Your task to perform on an android device: Clear the cart on walmart. Add "asus rog" to the cart on walmart, then select checkout. Image 0: 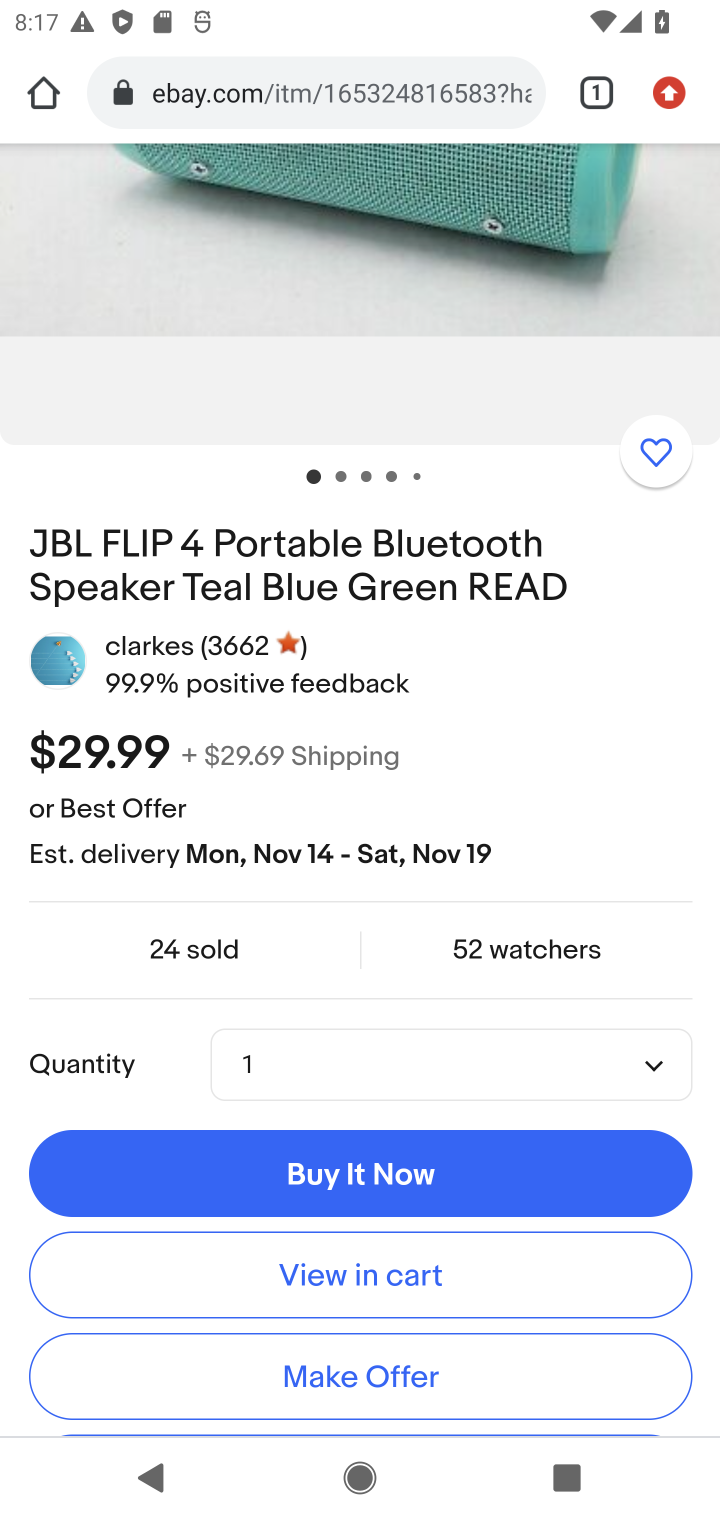
Step 0: press home button
Your task to perform on an android device: Clear the cart on walmart. Add "asus rog" to the cart on walmart, then select checkout. Image 1: 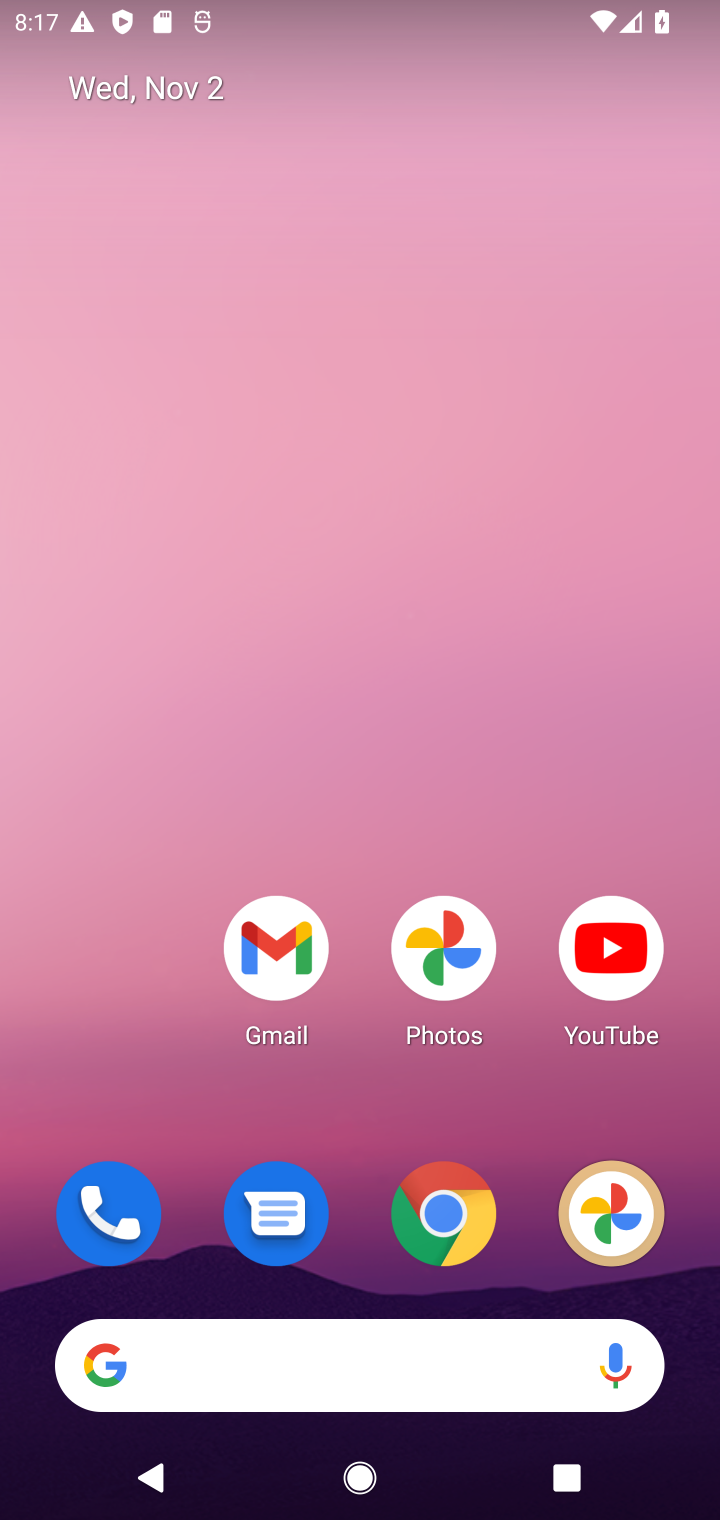
Step 1: click (452, 1213)
Your task to perform on an android device: Clear the cart on walmart. Add "asus rog" to the cart on walmart, then select checkout. Image 2: 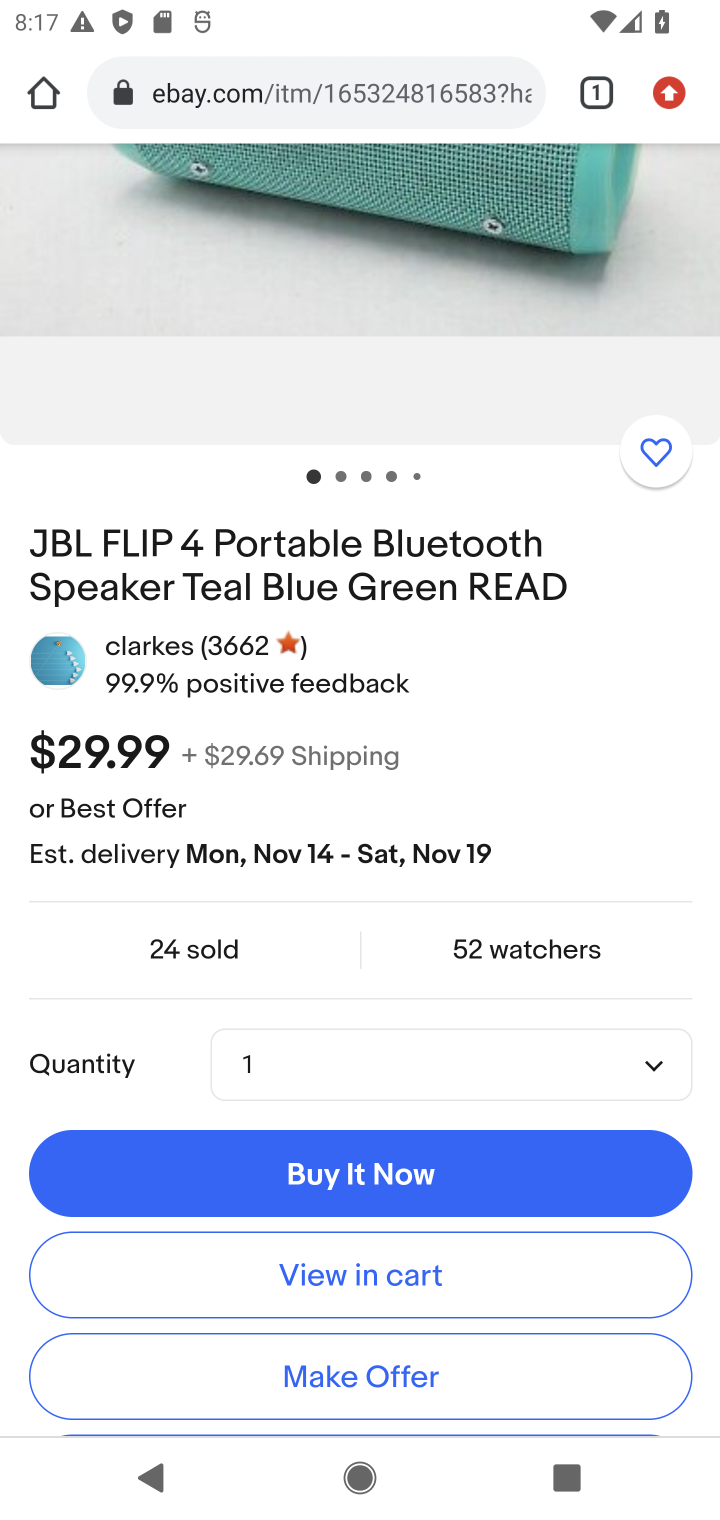
Step 2: click (323, 92)
Your task to perform on an android device: Clear the cart on walmart. Add "asus rog" to the cart on walmart, then select checkout. Image 3: 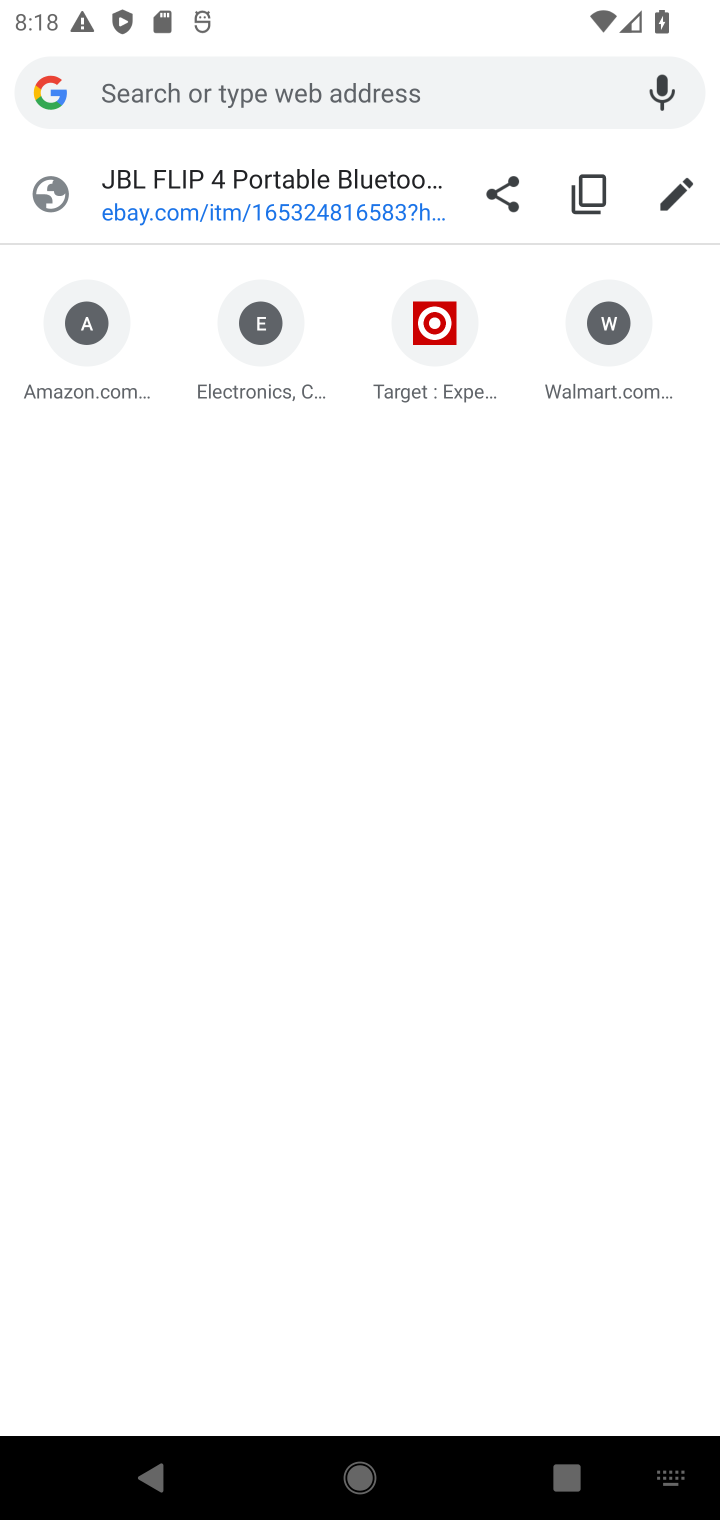
Step 3: click (193, 103)
Your task to perform on an android device: Clear the cart on walmart. Add "asus rog" to the cart on walmart, then select checkout. Image 4: 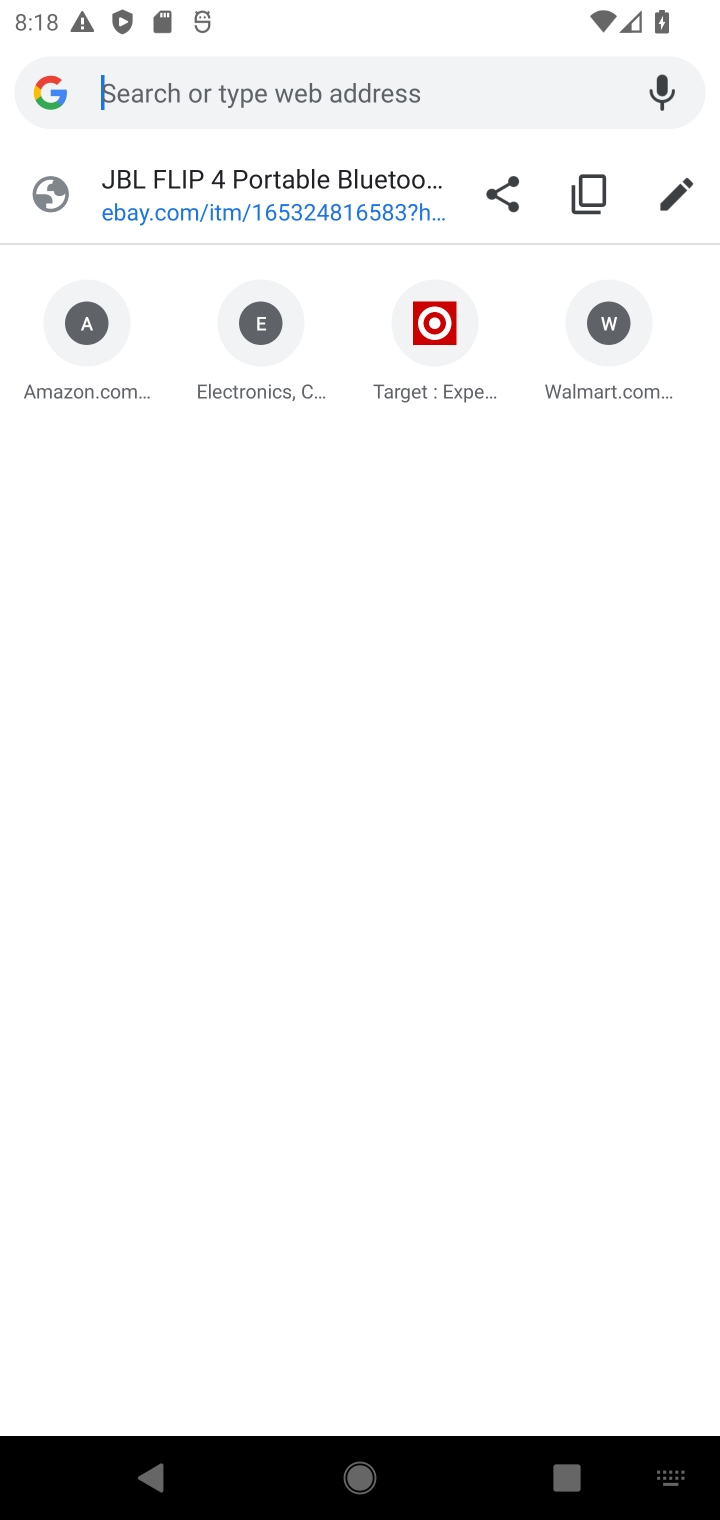
Step 4: type " walmart.com"
Your task to perform on an android device: Clear the cart on walmart. Add "asus rog" to the cart on walmart, then select checkout. Image 5: 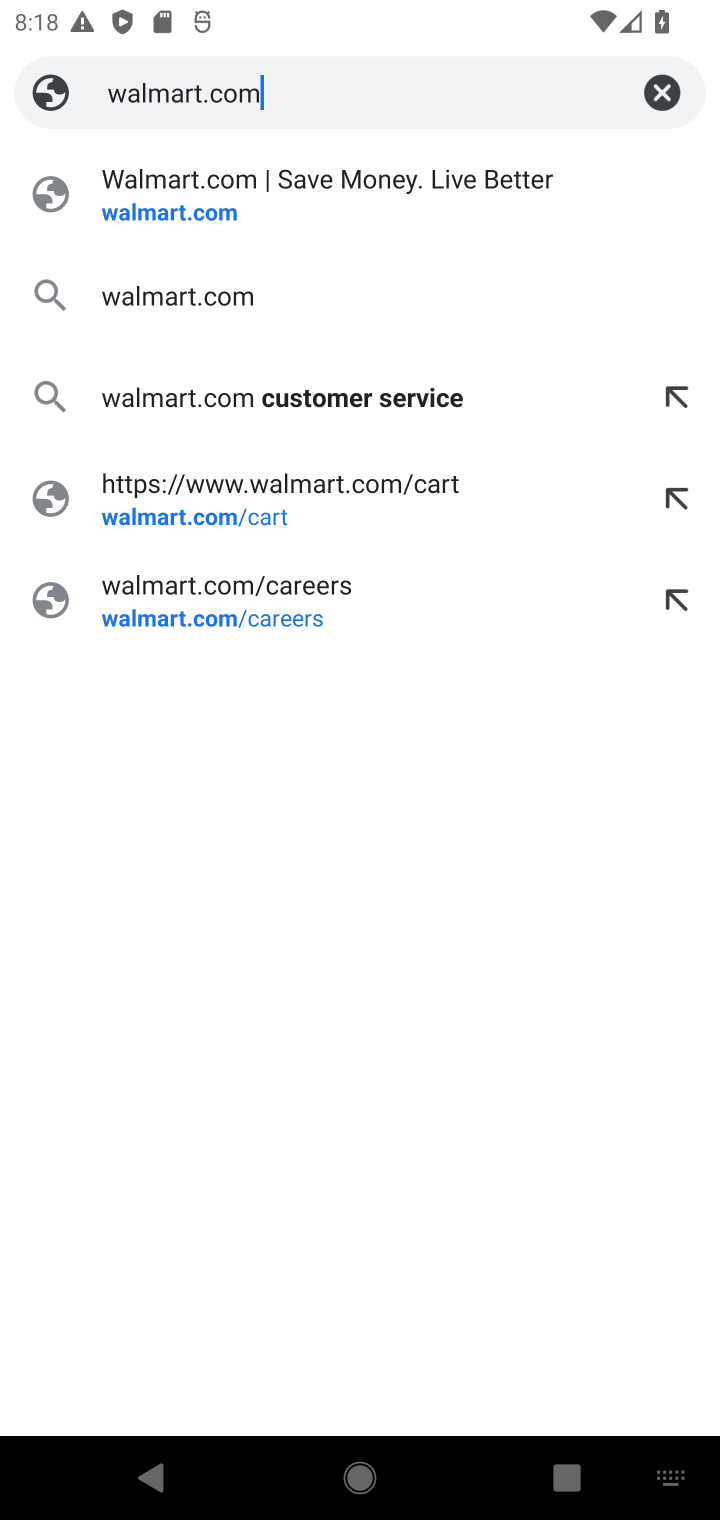
Step 5: click (147, 219)
Your task to perform on an android device: Clear the cart on walmart. Add "asus rog" to the cart on walmart, then select checkout. Image 6: 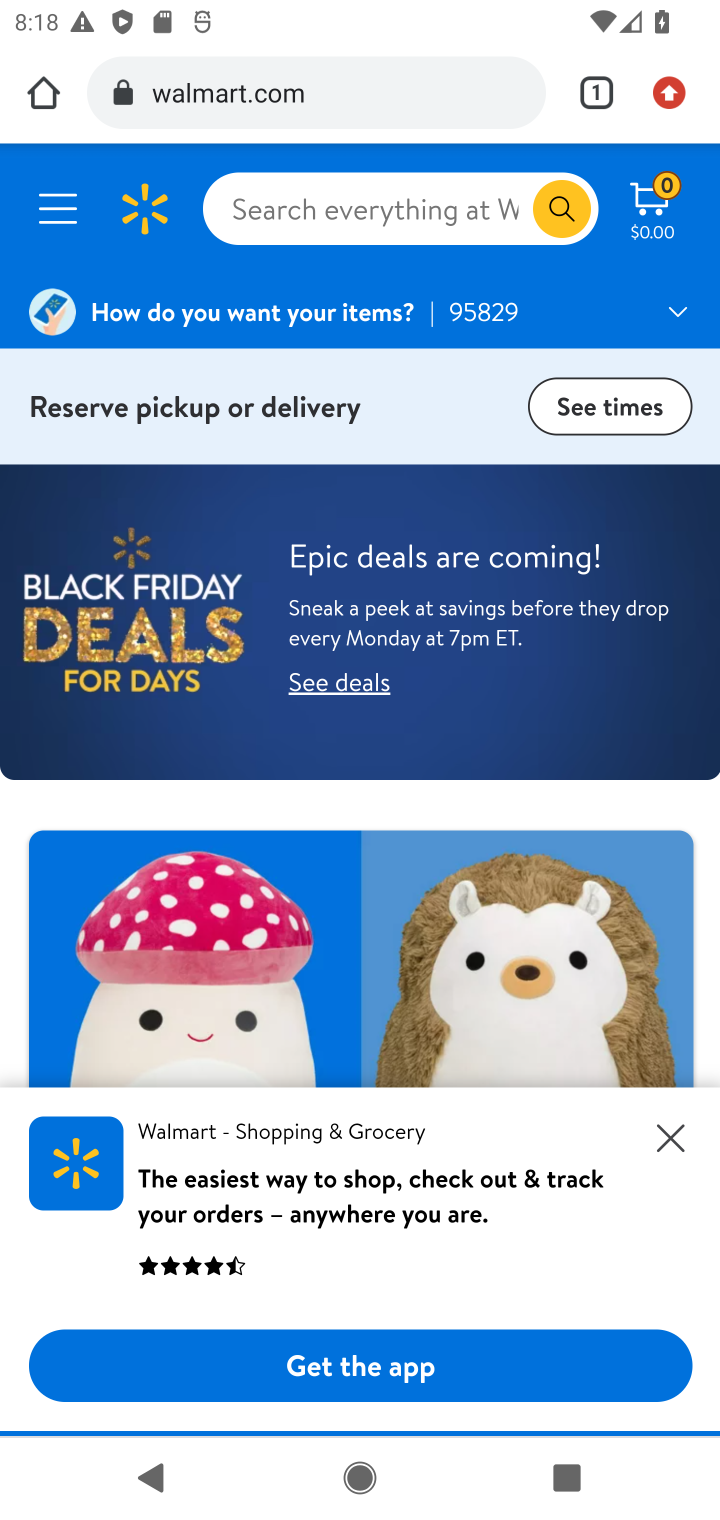
Step 6: click (653, 223)
Your task to perform on an android device: Clear the cart on walmart. Add "asus rog" to the cart on walmart, then select checkout. Image 7: 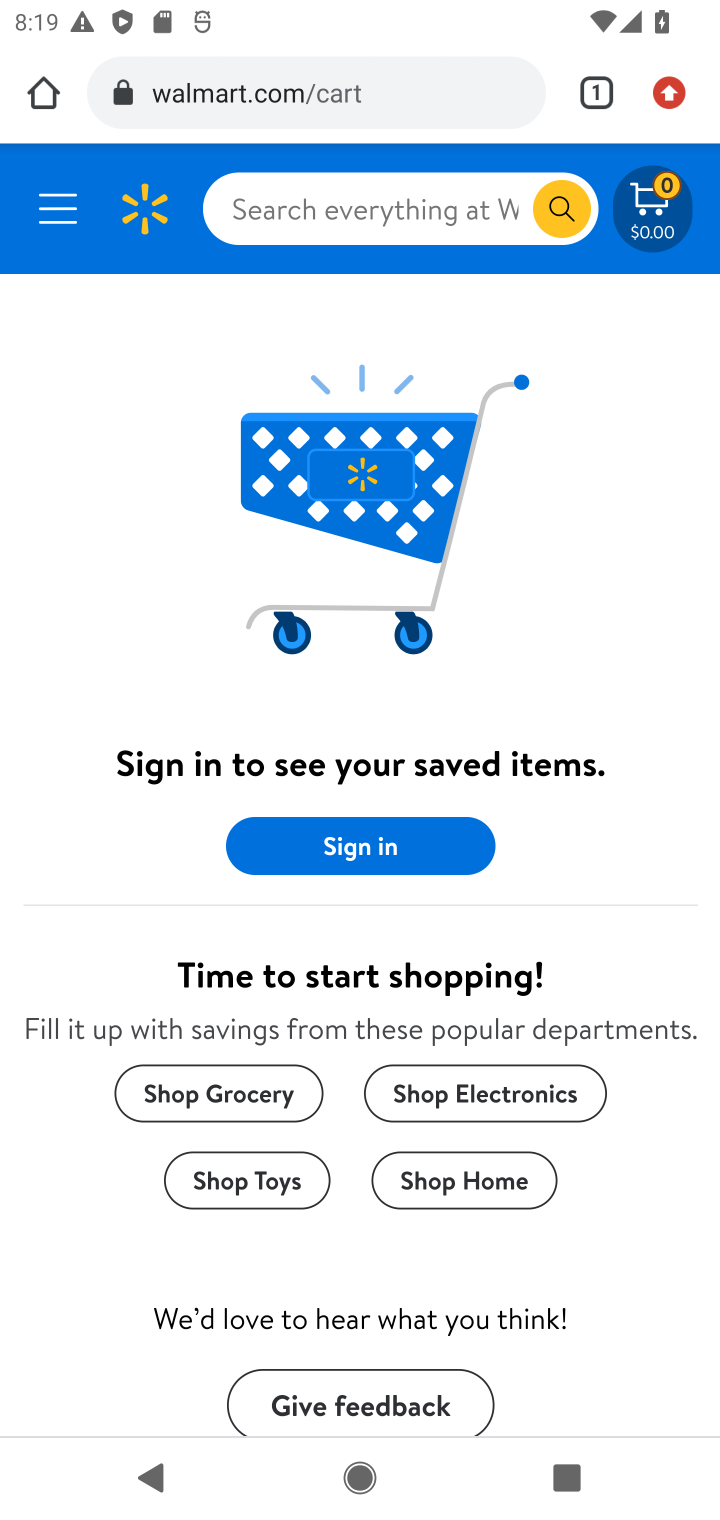
Step 7: click (664, 208)
Your task to perform on an android device: Clear the cart on walmart. Add "asus rog" to the cart on walmart, then select checkout. Image 8: 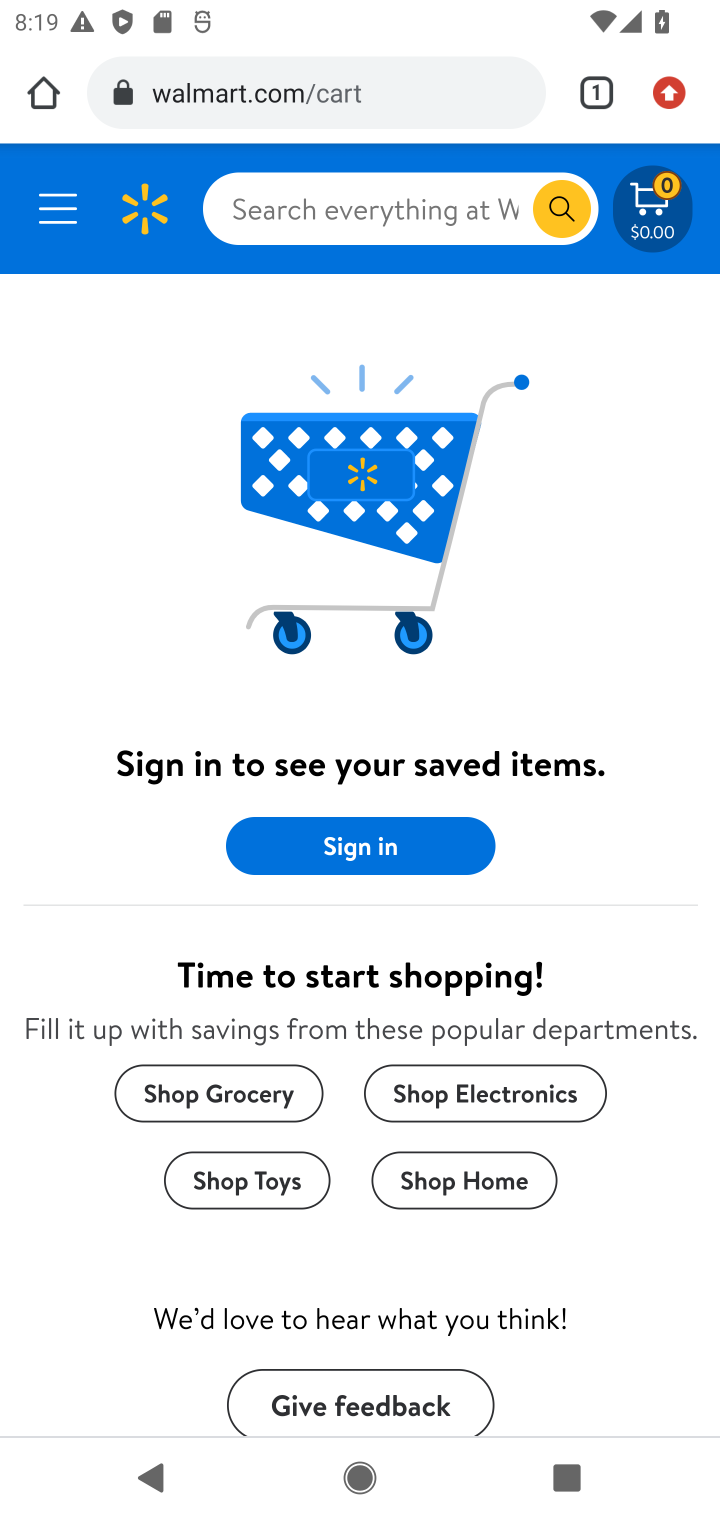
Step 8: click (308, 215)
Your task to perform on an android device: Clear the cart on walmart. Add "asus rog" to the cart on walmart, then select checkout. Image 9: 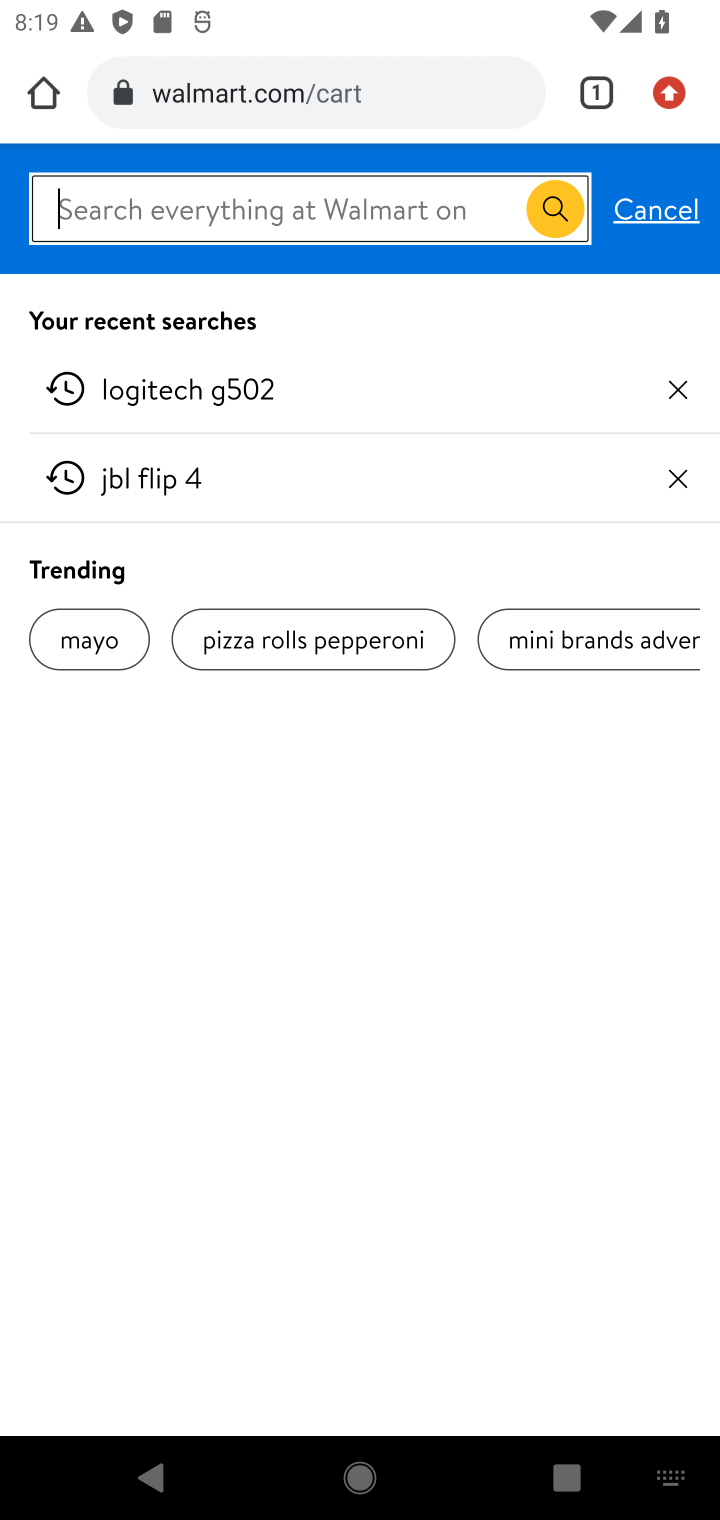
Step 9: type "asus rog"
Your task to perform on an android device: Clear the cart on walmart. Add "asus rog" to the cart on walmart, then select checkout. Image 10: 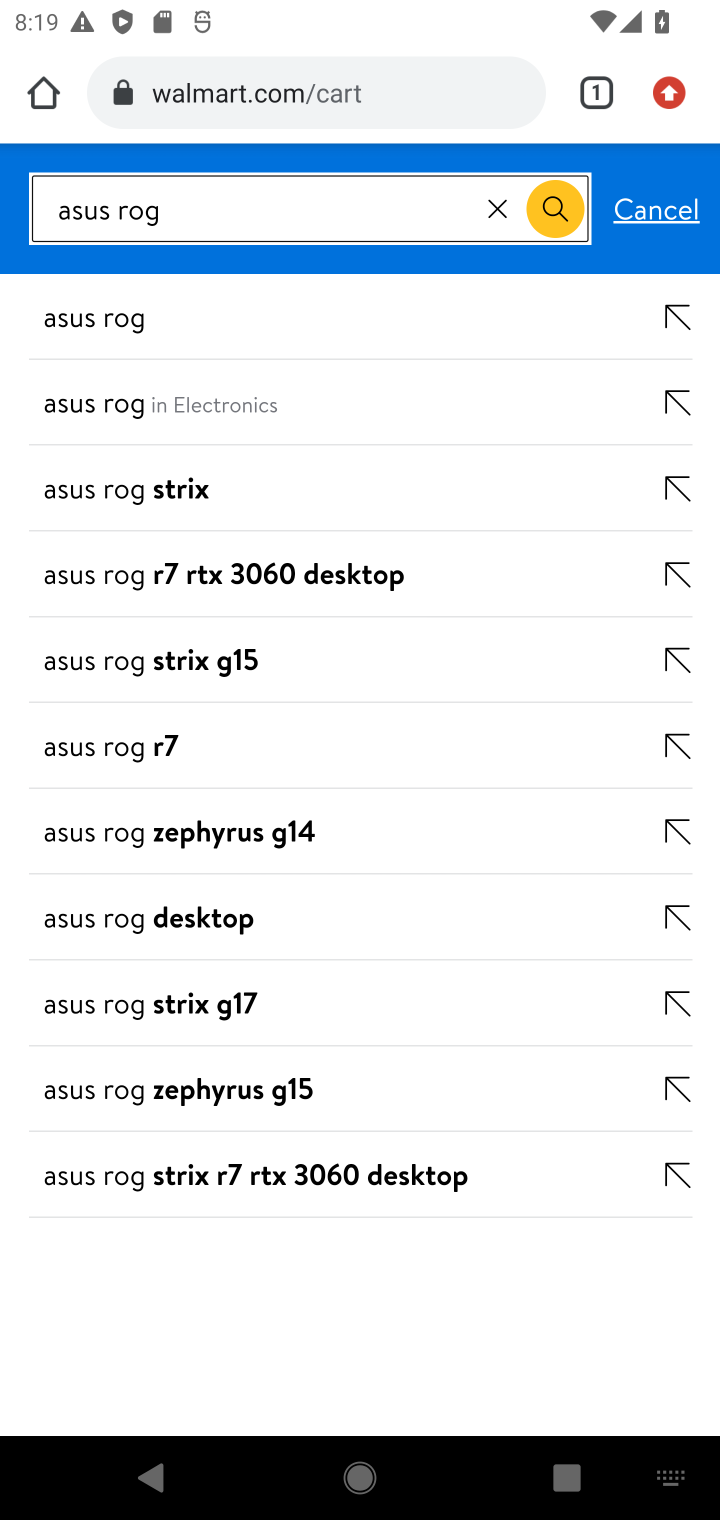
Step 10: click (46, 330)
Your task to perform on an android device: Clear the cart on walmart. Add "asus rog" to the cart on walmart, then select checkout. Image 11: 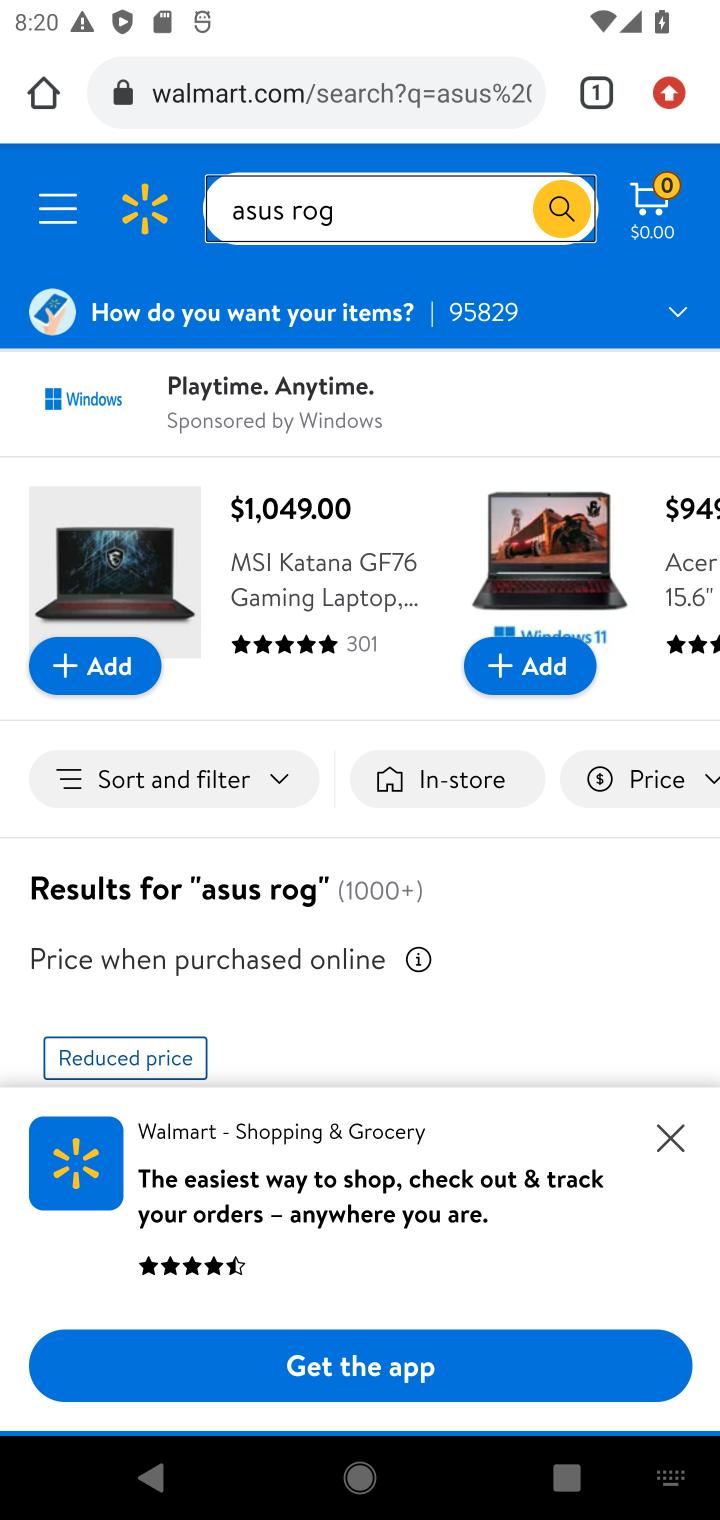
Step 11: drag from (488, 935) to (527, 379)
Your task to perform on an android device: Clear the cart on walmart. Add "asus rog" to the cart on walmart, then select checkout. Image 12: 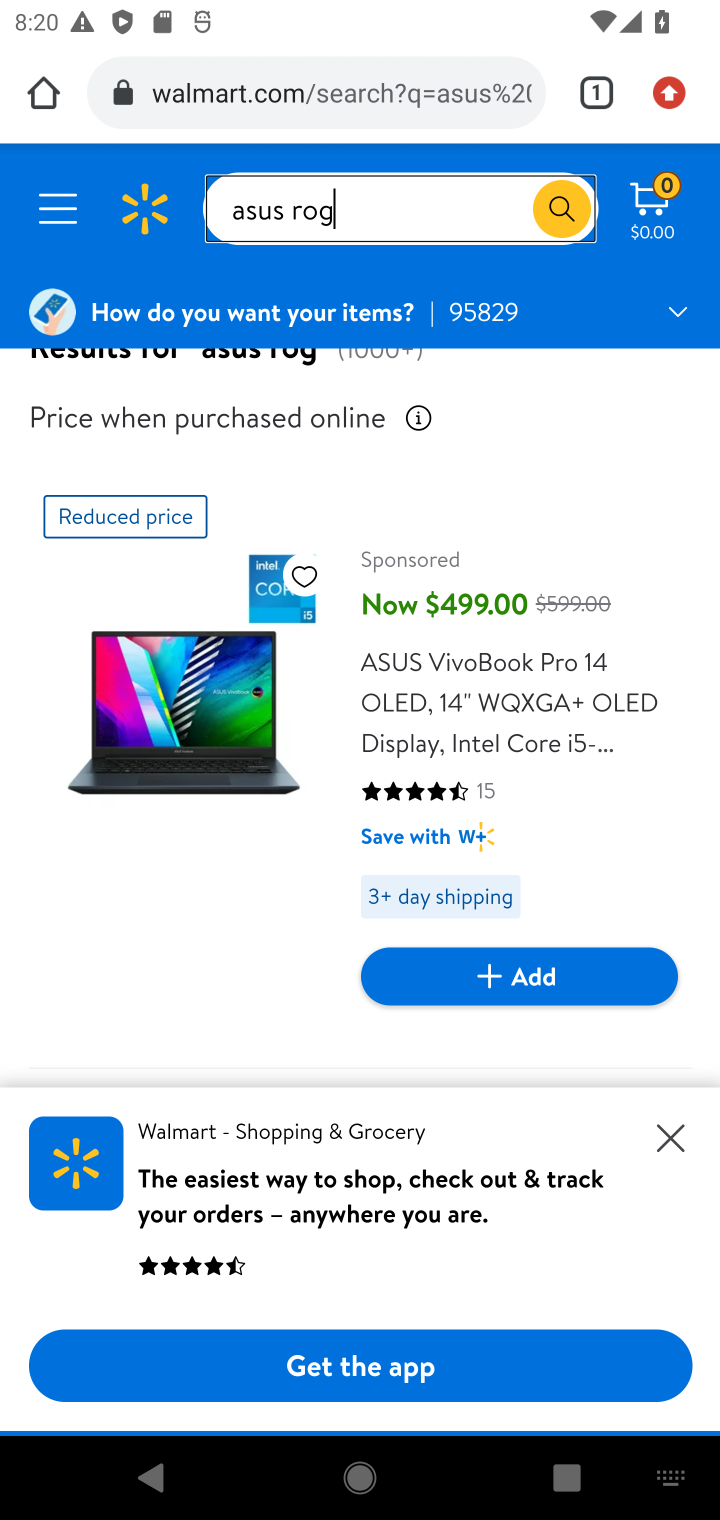
Step 12: drag from (577, 869) to (553, 301)
Your task to perform on an android device: Clear the cart on walmart. Add "asus rog" to the cart on walmart, then select checkout. Image 13: 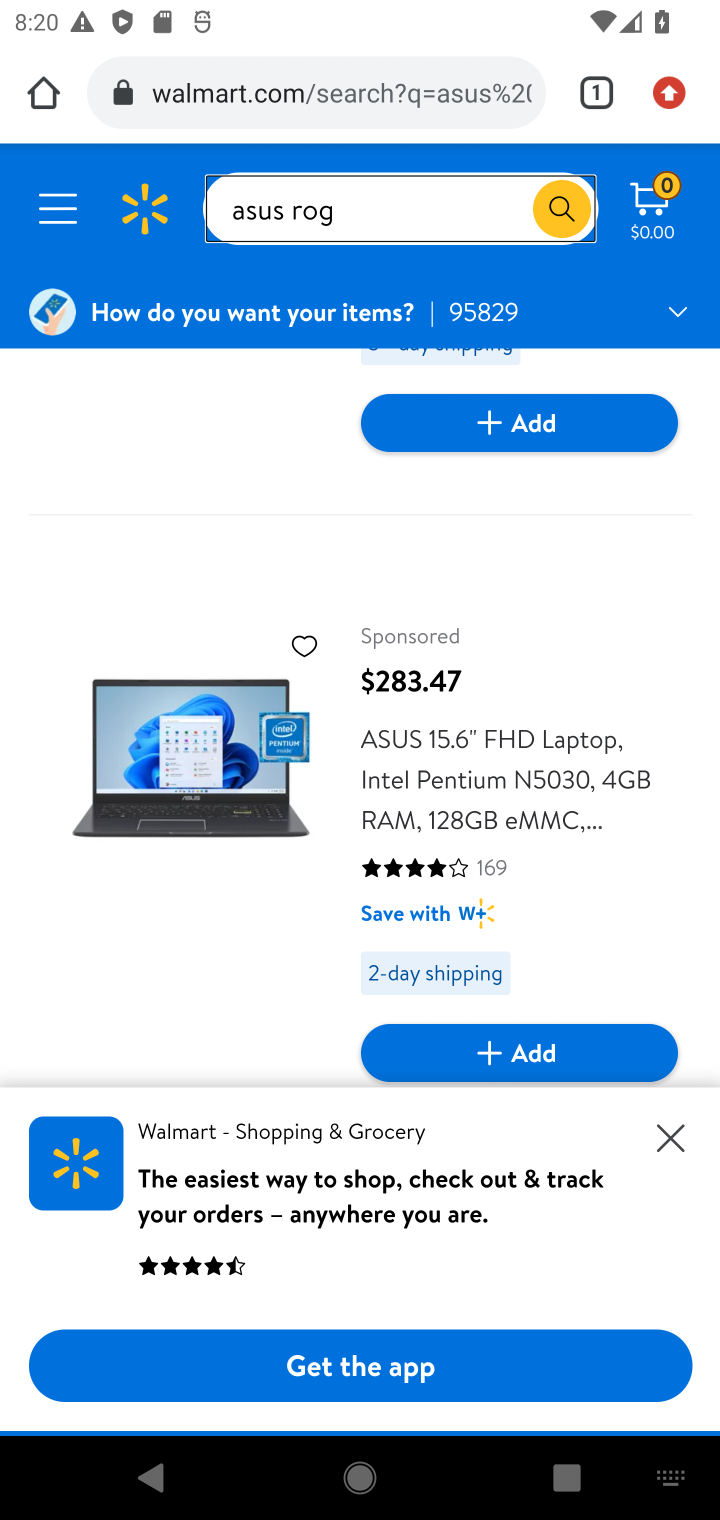
Step 13: drag from (535, 941) to (528, 464)
Your task to perform on an android device: Clear the cart on walmart. Add "asus rog" to the cart on walmart, then select checkout. Image 14: 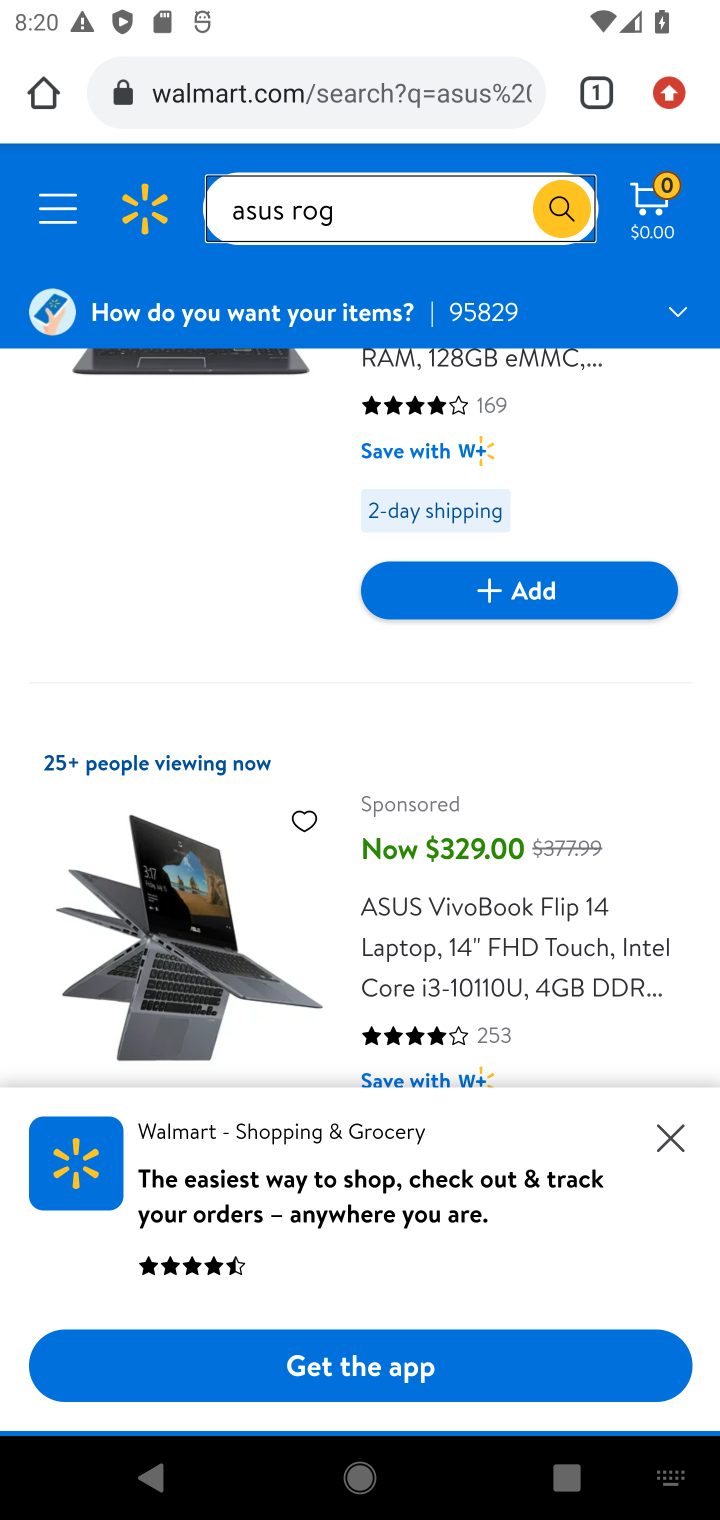
Step 14: drag from (471, 937) to (496, 386)
Your task to perform on an android device: Clear the cart on walmart. Add "asus rog" to the cart on walmart, then select checkout. Image 15: 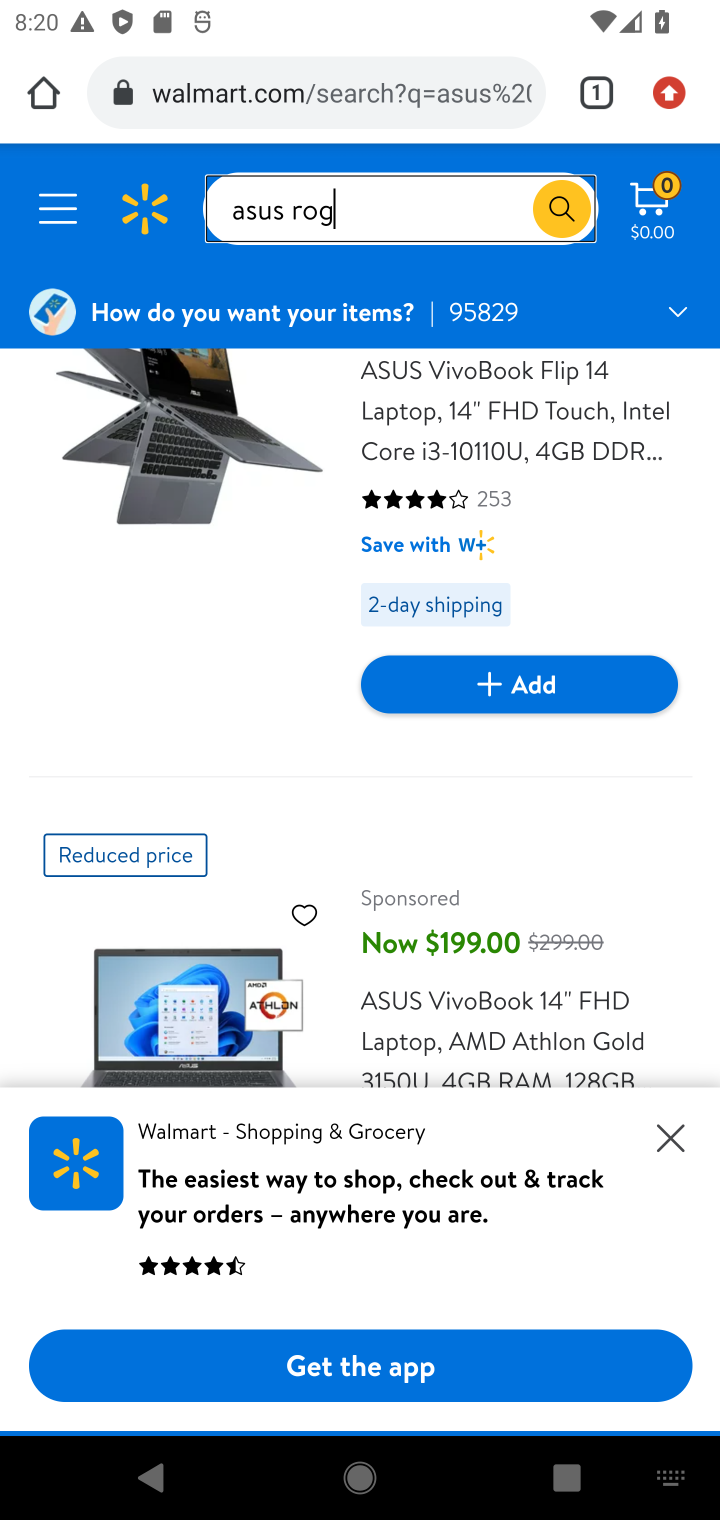
Step 15: drag from (466, 869) to (471, 359)
Your task to perform on an android device: Clear the cart on walmart. Add "asus rog" to the cart on walmart, then select checkout. Image 16: 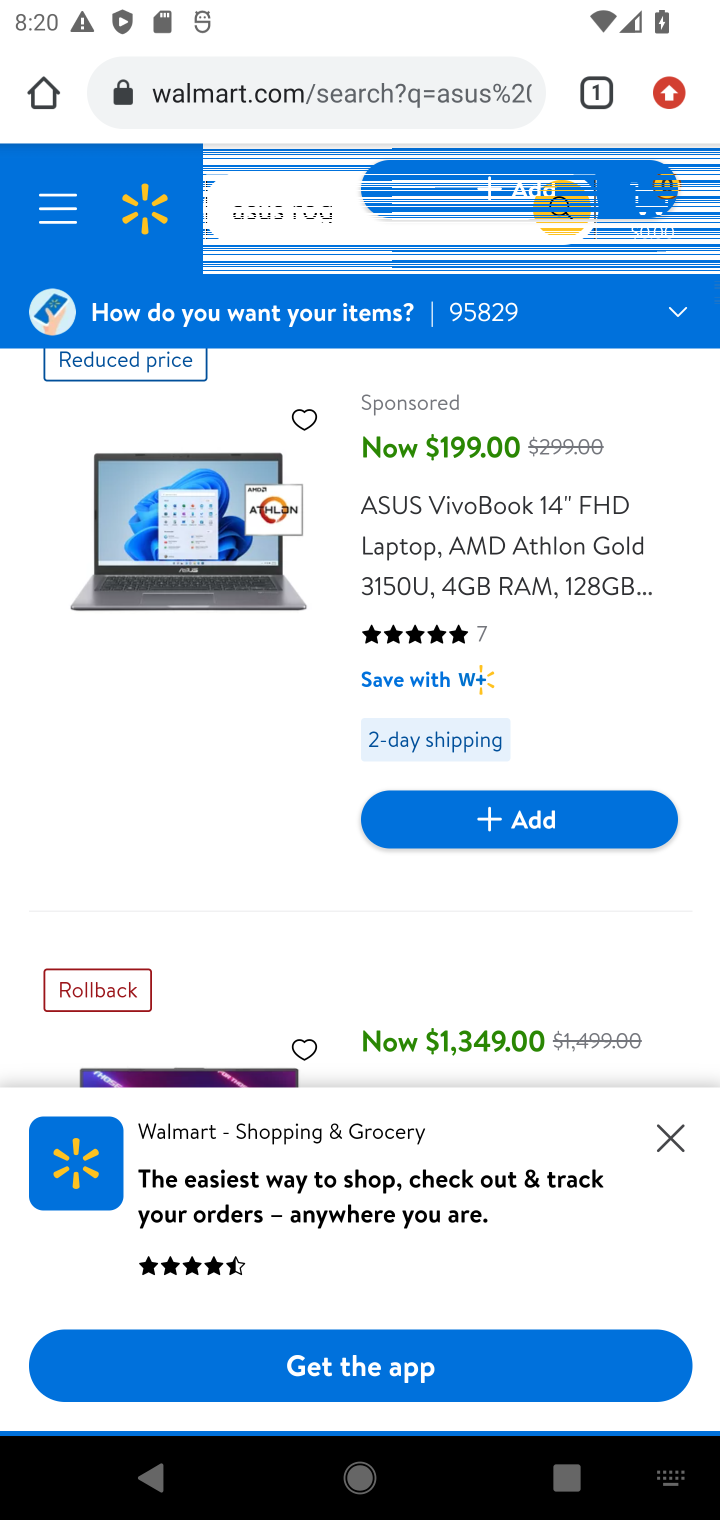
Step 16: drag from (443, 967) to (486, 514)
Your task to perform on an android device: Clear the cart on walmart. Add "asus rog" to the cart on walmart, then select checkout. Image 17: 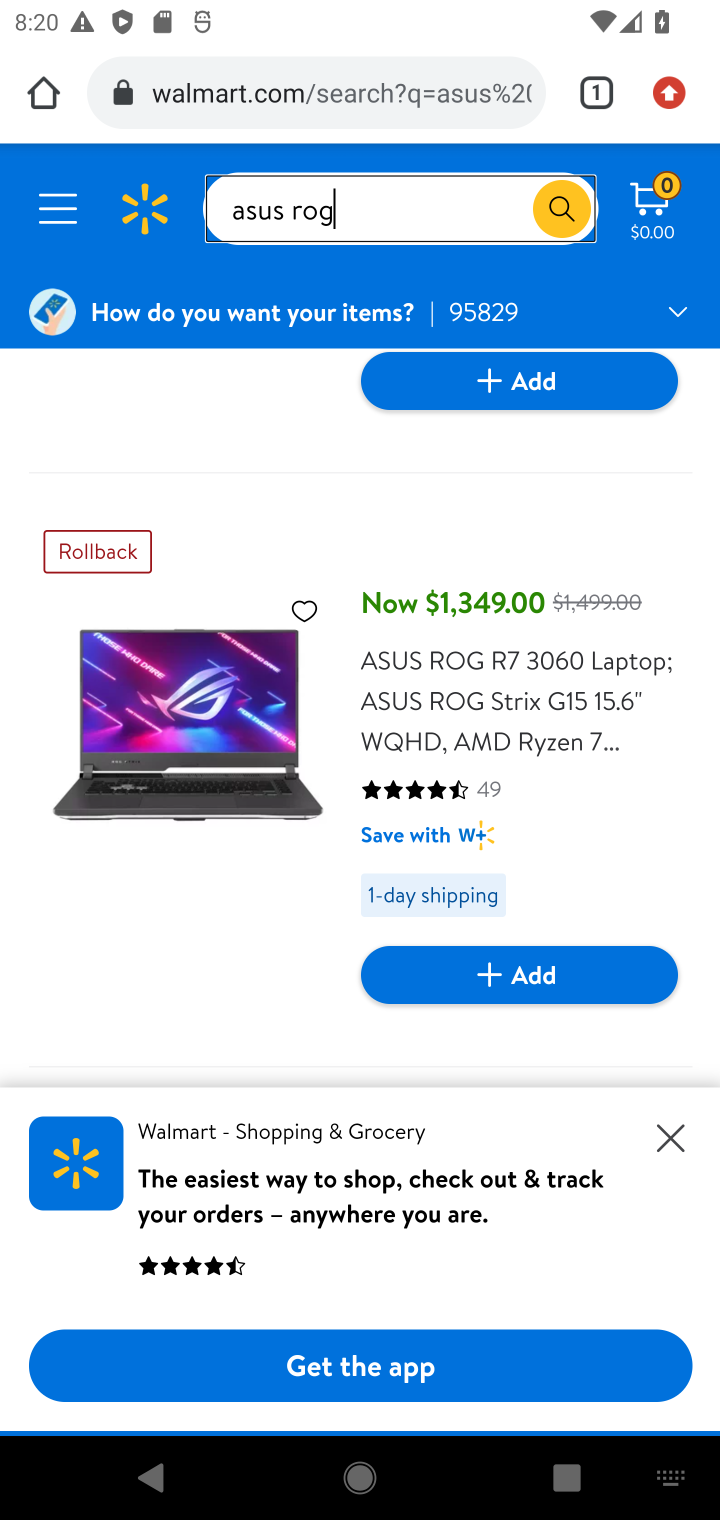
Step 17: click (380, 694)
Your task to perform on an android device: Clear the cart on walmart. Add "asus rog" to the cart on walmart, then select checkout. Image 18: 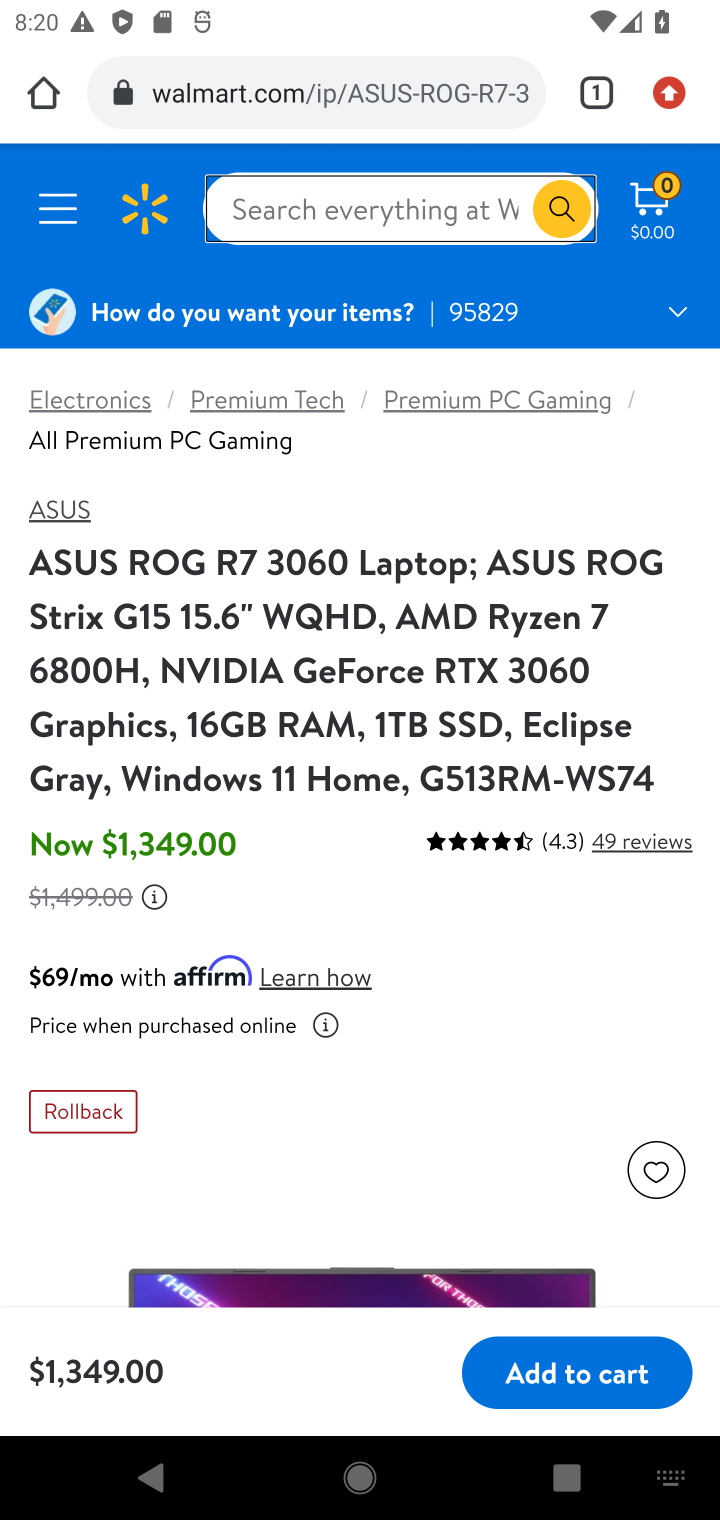
Step 18: click (601, 1373)
Your task to perform on an android device: Clear the cart on walmart. Add "asus rog" to the cart on walmart, then select checkout. Image 19: 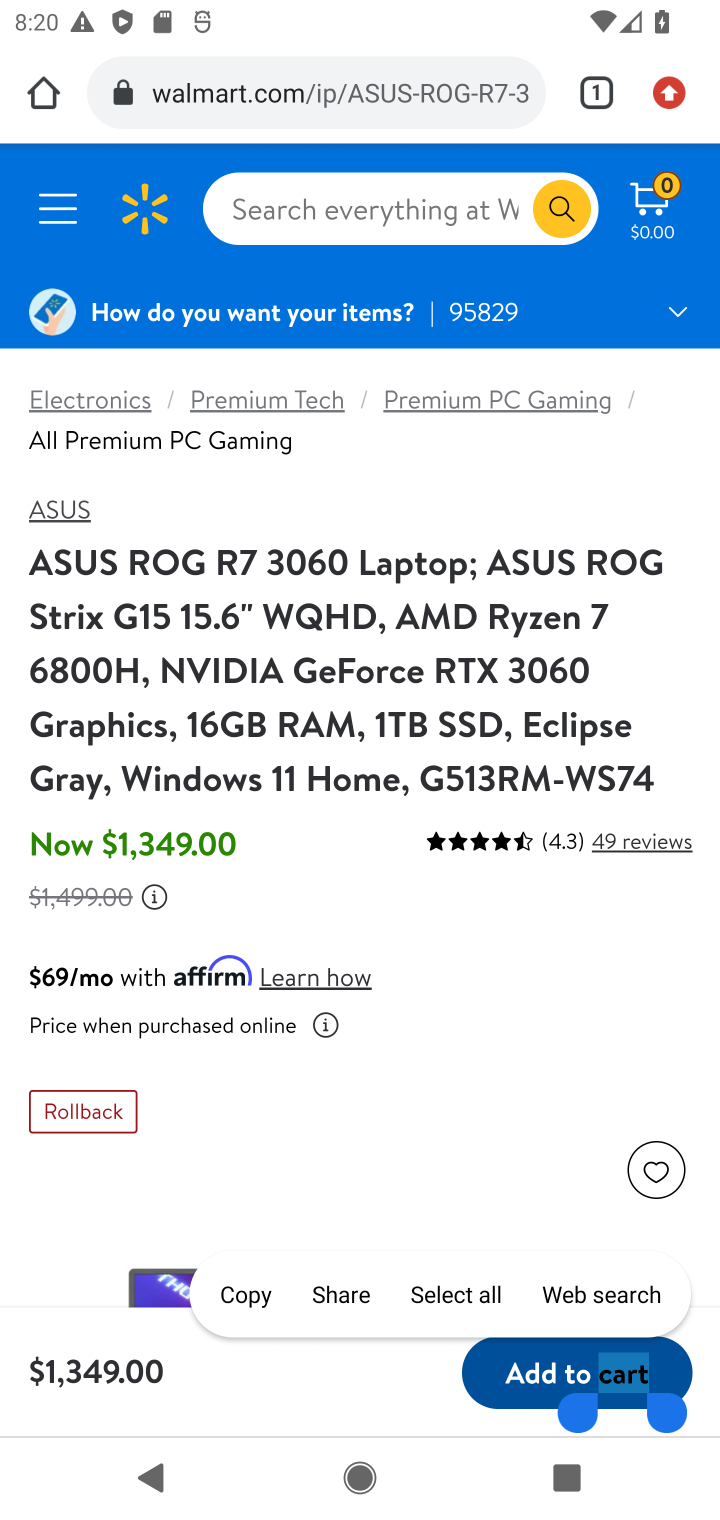
Step 19: click (566, 1386)
Your task to perform on an android device: Clear the cart on walmart. Add "asus rog" to the cart on walmart, then select checkout. Image 20: 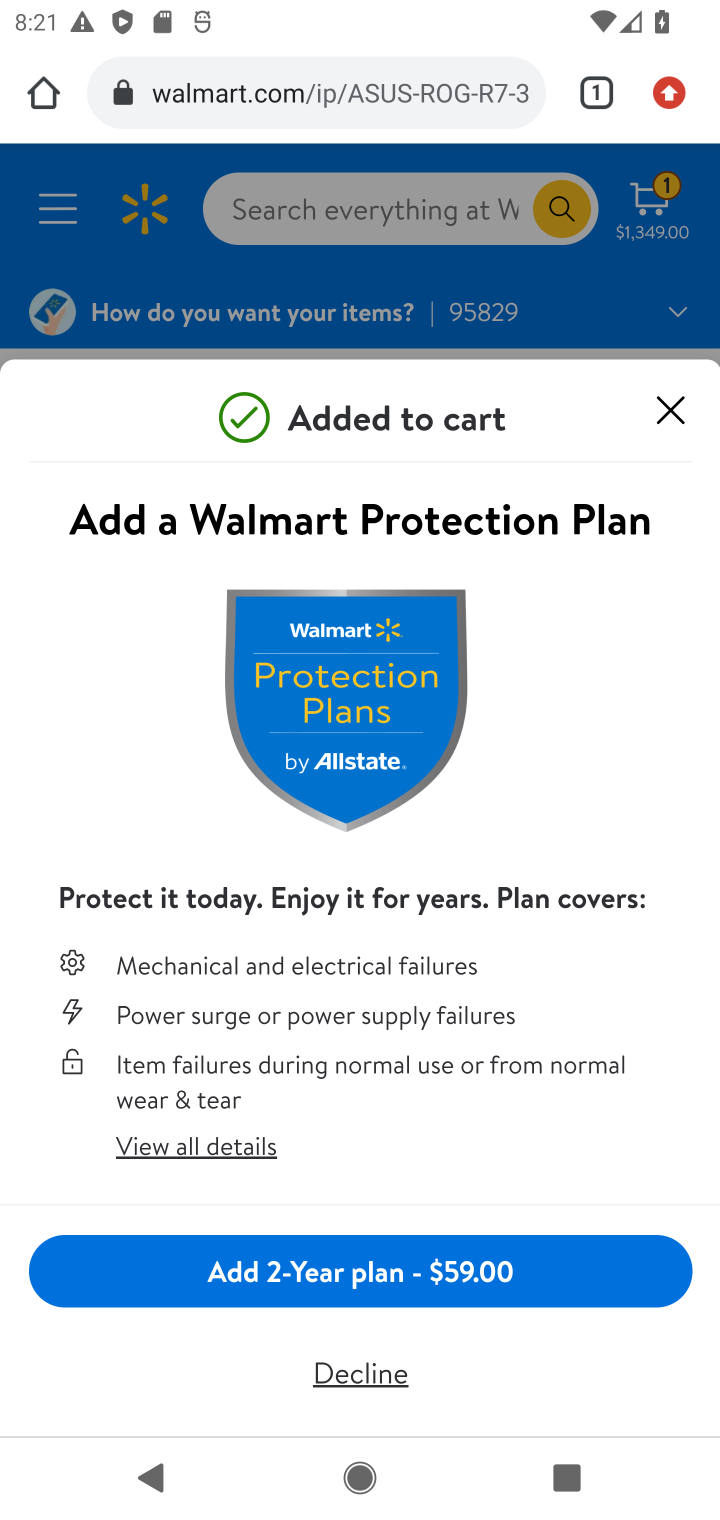
Step 20: click (656, 399)
Your task to perform on an android device: Clear the cart on walmart. Add "asus rog" to the cart on walmart, then select checkout. Image 21: 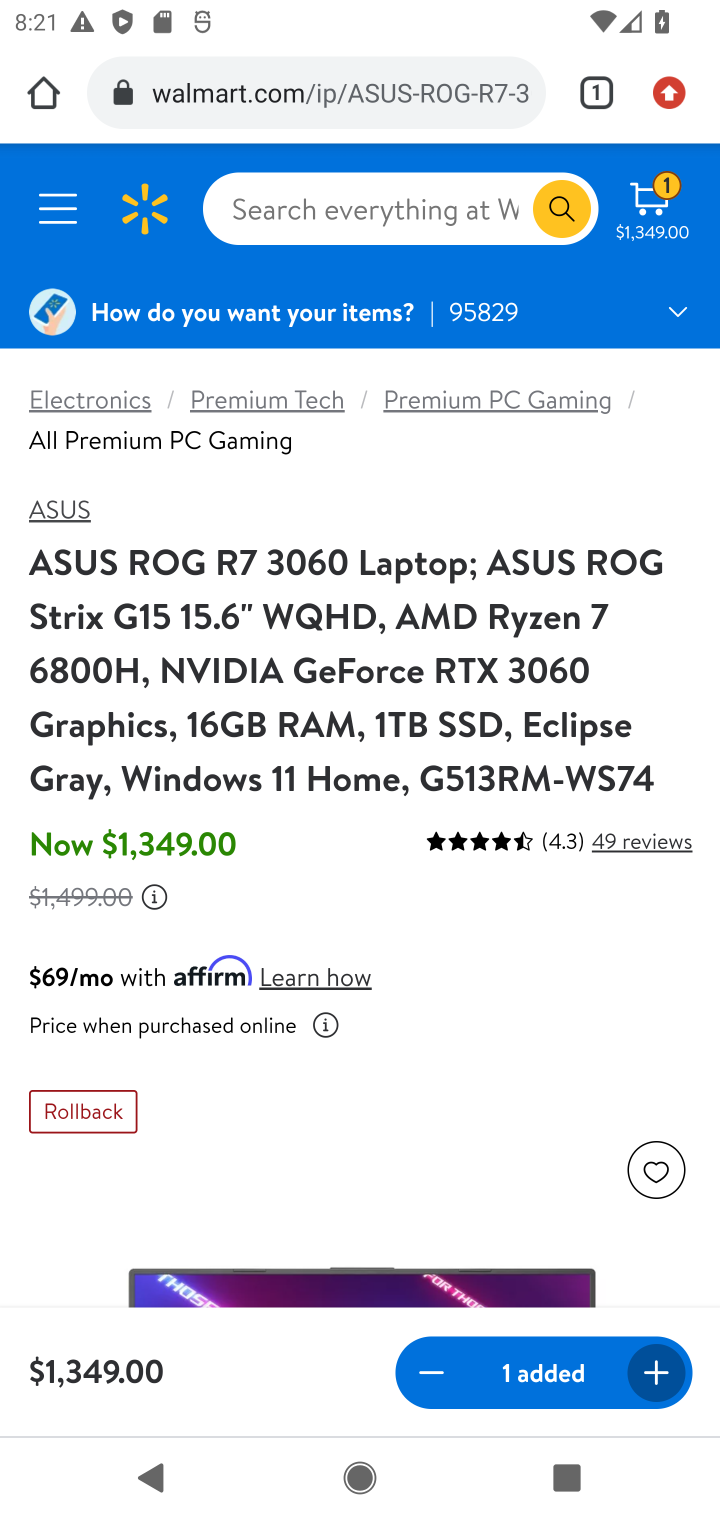
Step 21: drag from (322, 736) to (346, 206)
Your task to perform on an android device: Clear the cart on walmart. Add "asus rog" to the cart on walmart, then select checkout. Image 22: 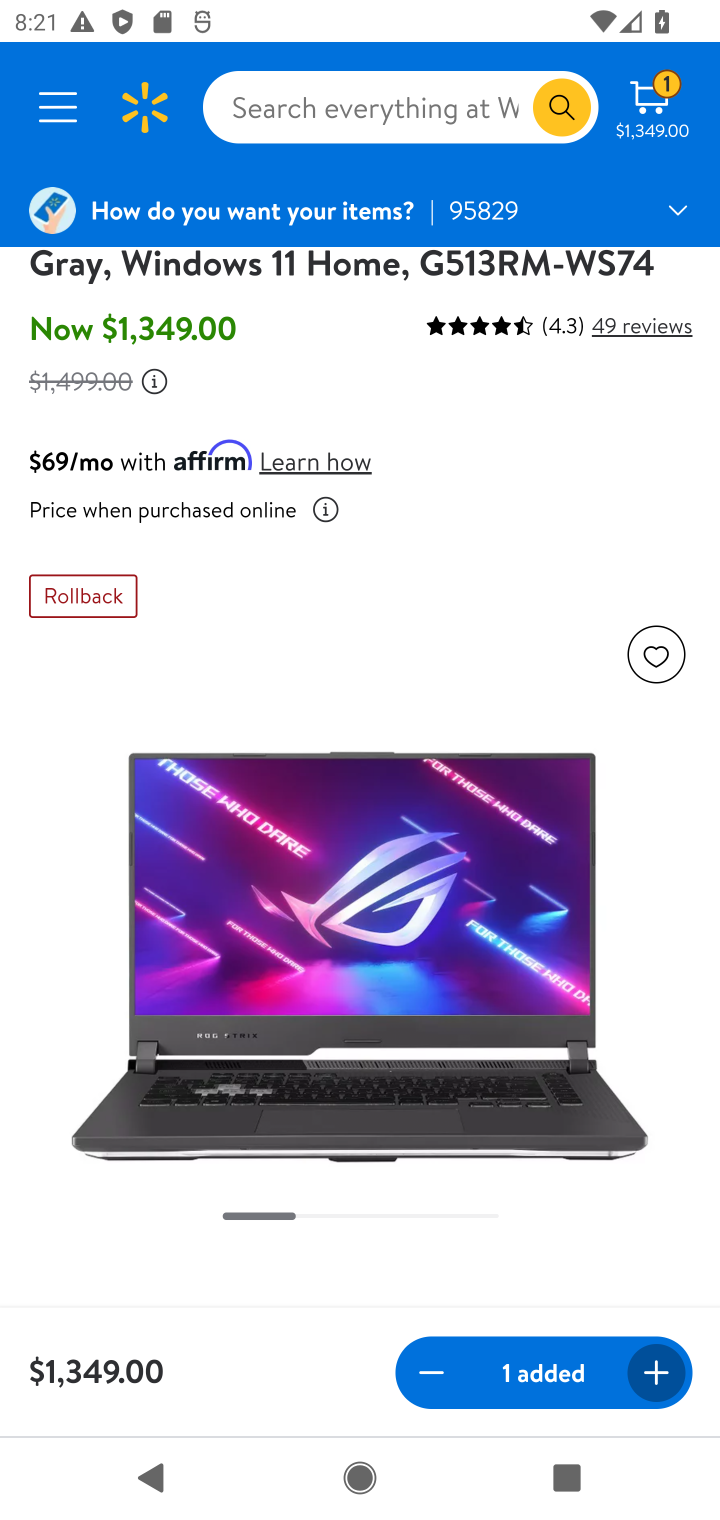
Step 22: drag from (285, 805) to (310, 349)
Your task to perform on an android device: Clear the cart on walmart. Add "asus rog" to the cart on walmart, then select checkout. Image 23: 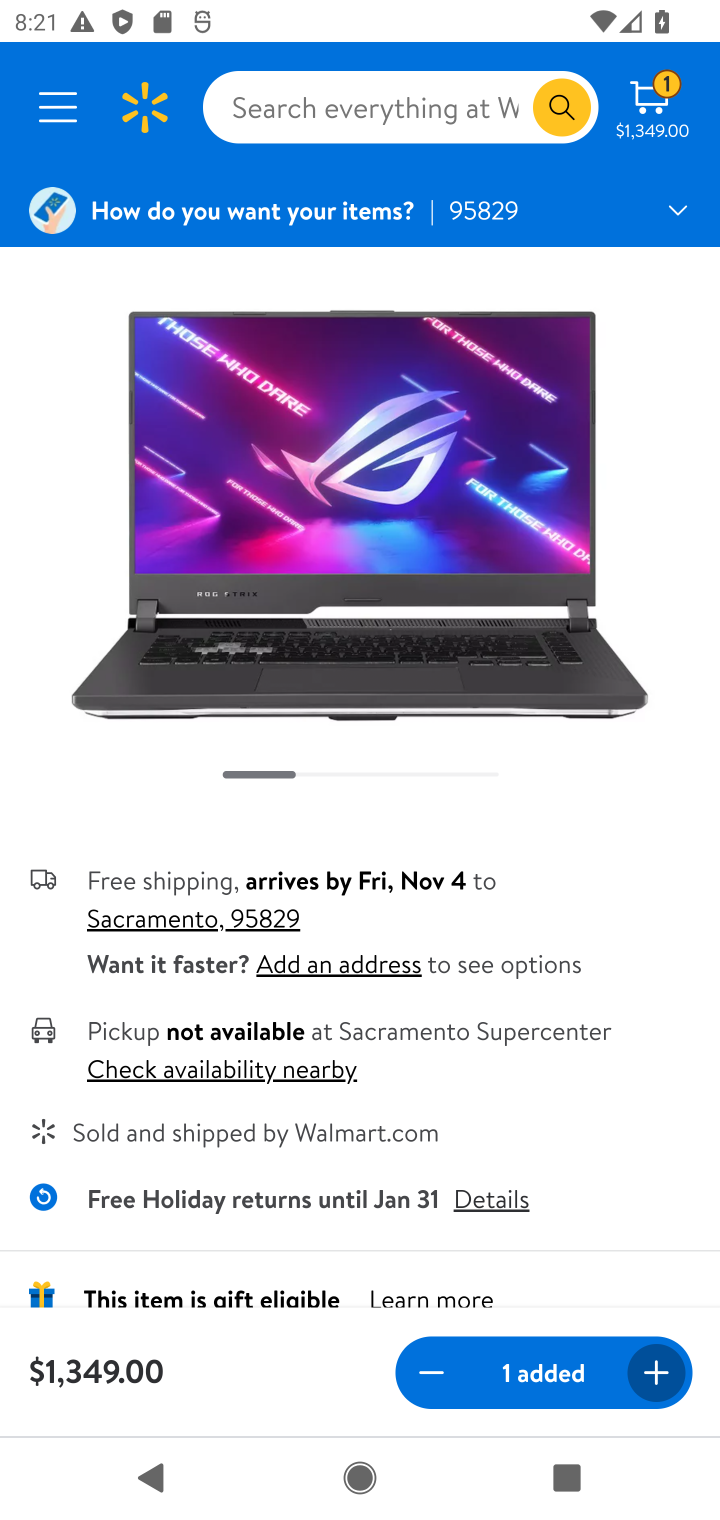
Step 23: drag from (257, 1015) to (318, 645)
Your task to perform on an android device: Clear the cart on walmart. Add "asus rog" to the cart on walmart, then select checkout. Image 24: 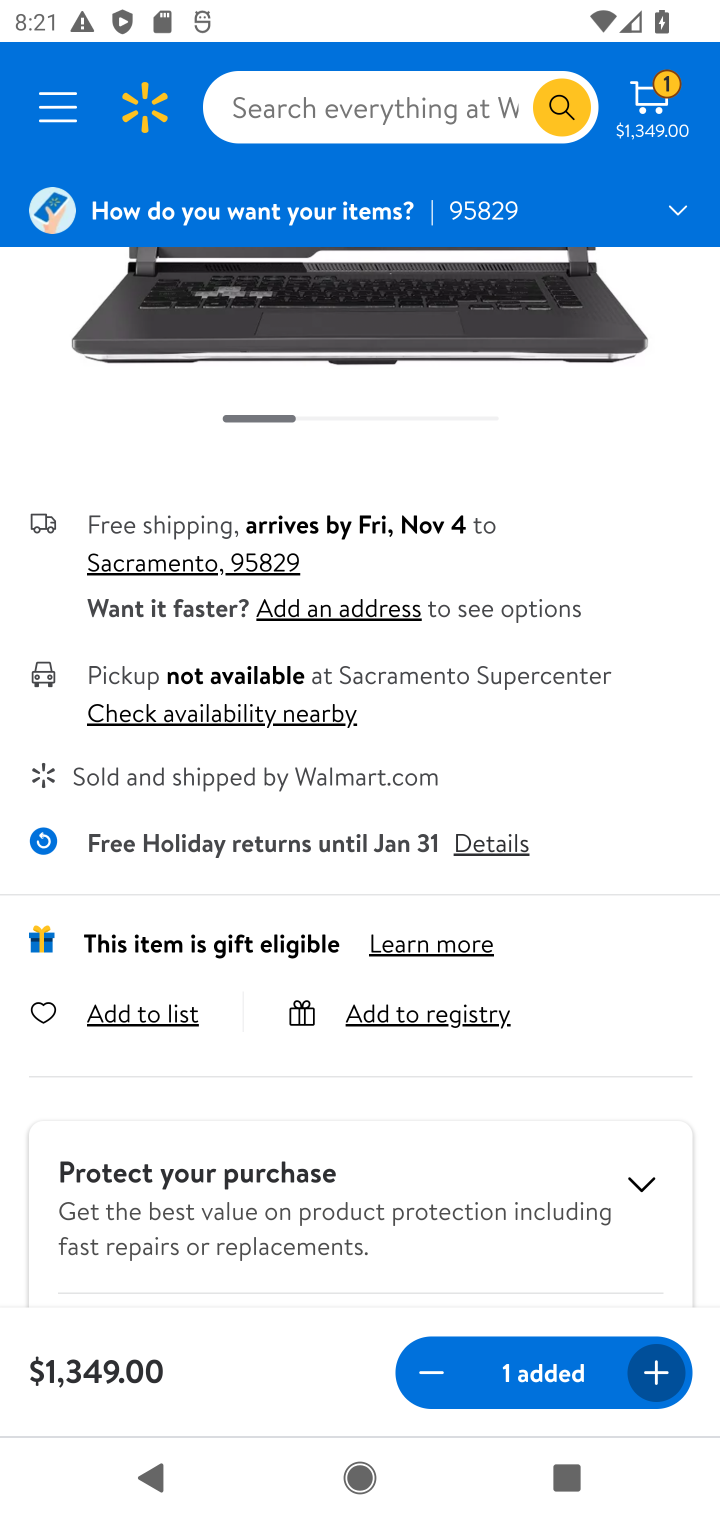
Step 24: click (640, 112)
Your task to perform on an android device: Clear the cart on walmart. Add "asus rog" to the cart on walmart, then select checkout. Image 25: 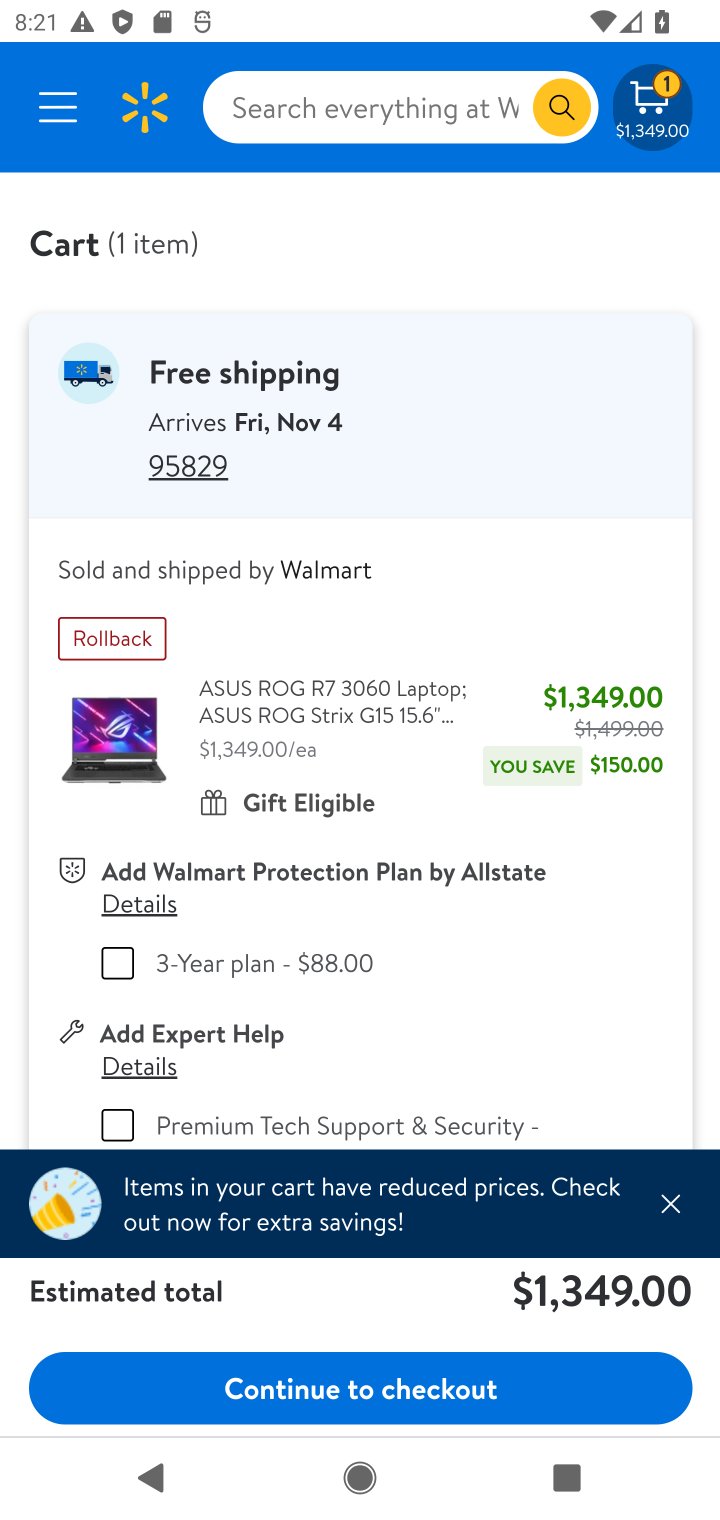
Step 25: click (319, 1392)
Your task to perform on an android device: Clear the cart on walmart. Add "asus rog" to the cart on walmart, then select checkout. Image 26: 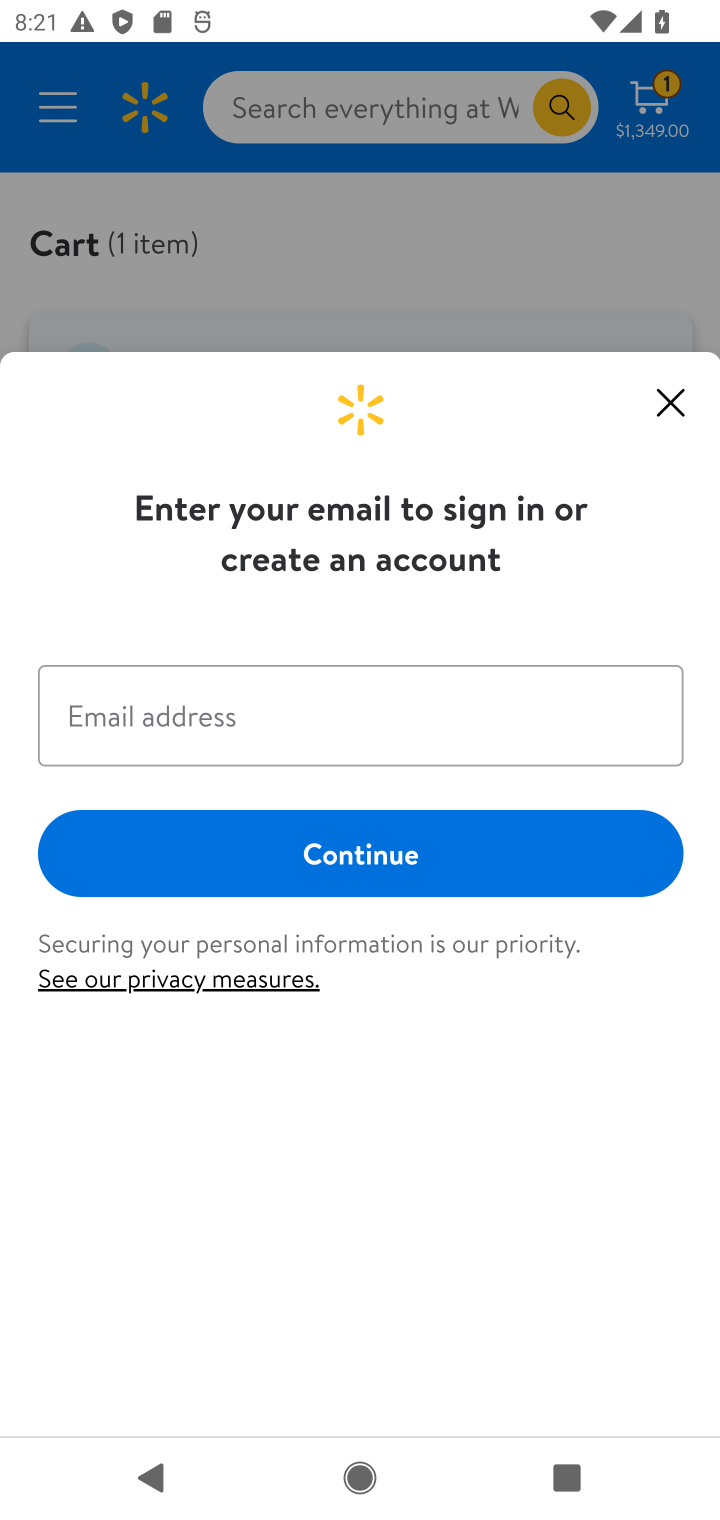
Step 26: task complete